Your task to perform on an android device: Go to settings Image 0: 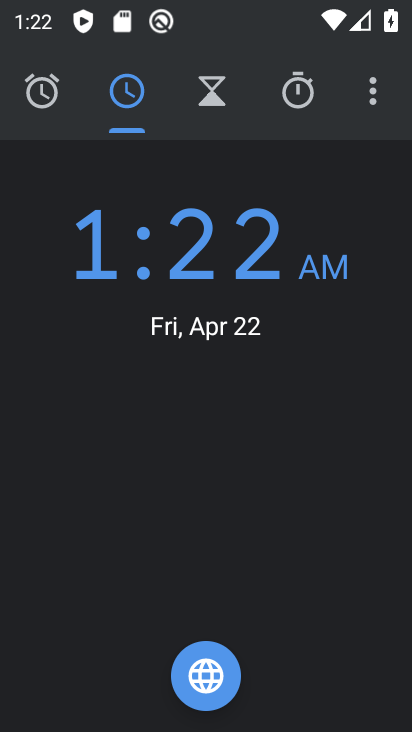
Step 0: press home button
Your task to perform on an android device: Go to settings Image 1: 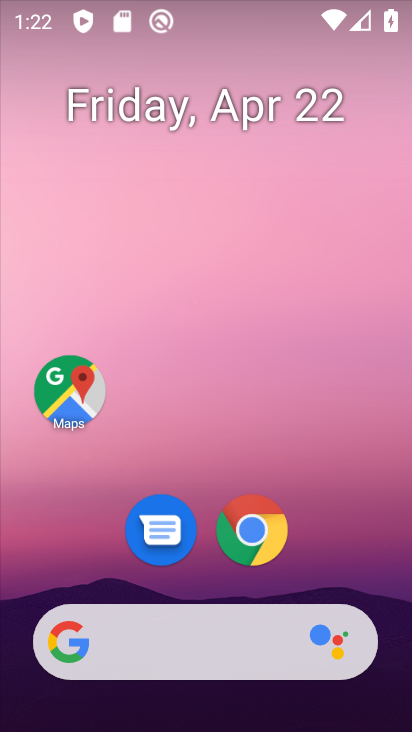
Step 1: drag from (195, 627) to (196, 98)
Your task to perform on an android device: Go to settings Image 2: 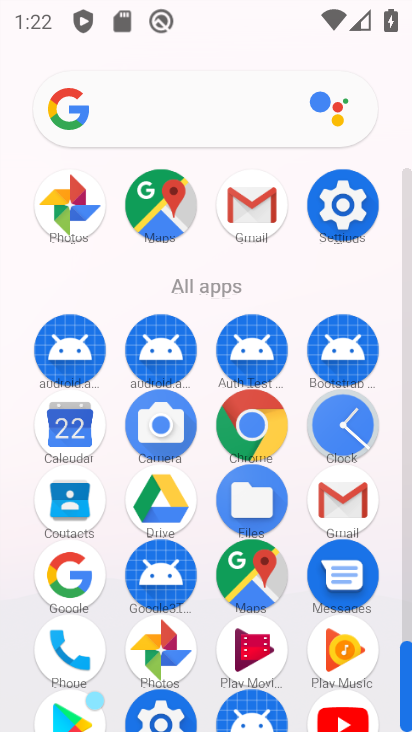
Step 2: click (343, 200)
Your task to perform on an android device: Go to settings Image 3: 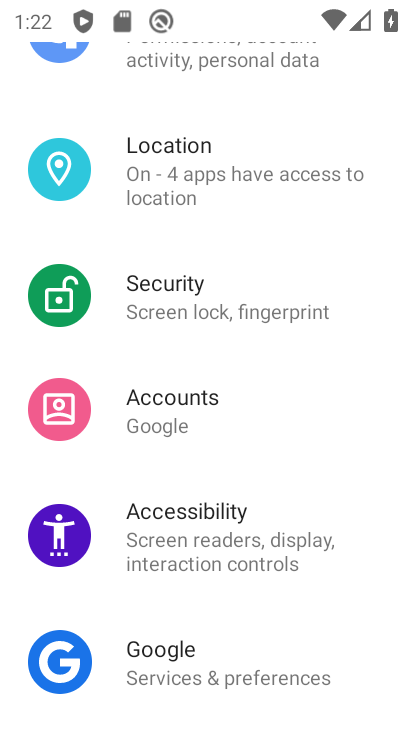
Step 3: task complete